Your task to perform on an android device: toggle wifi Image 0: 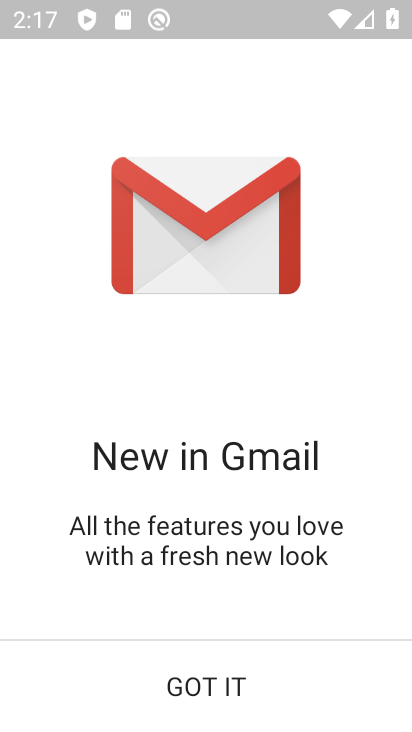
Step 0: press home button
Your task to perform on an android device: toggle wifi Image 1: 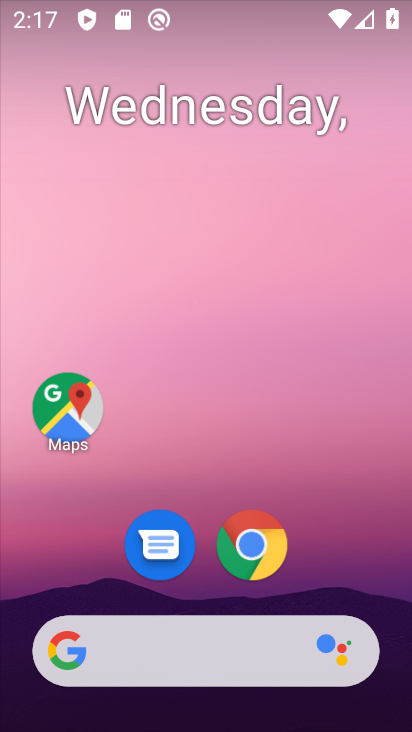
Step 1: drag from (195, 583) to (180, 281)
Your task to perform on an android device: toggle wifi Image 2: 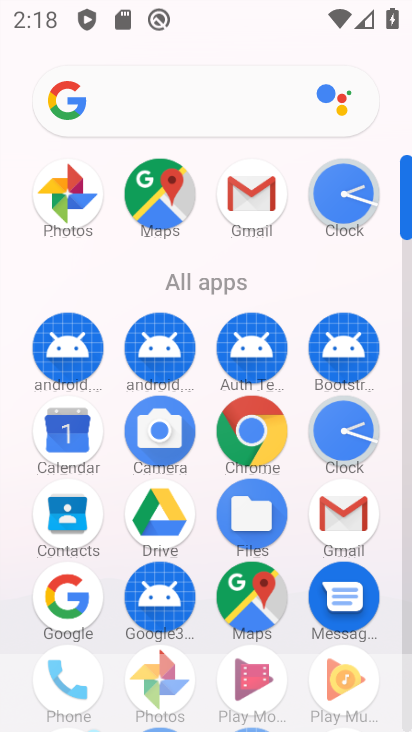
Step 2: drag from (288, 585) to (281, 387)
Your task to perform on an android device: toggle wifi Image 3: 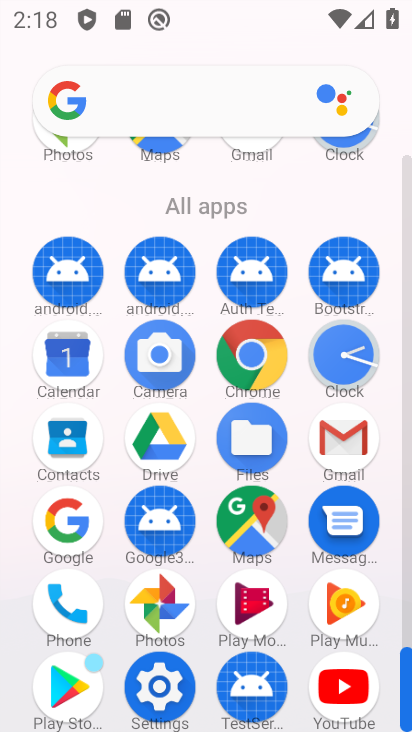
Step 3: drag from (288, 255) to (298, 532)
Your task to perform on an android device: toggle wifi Image 4: 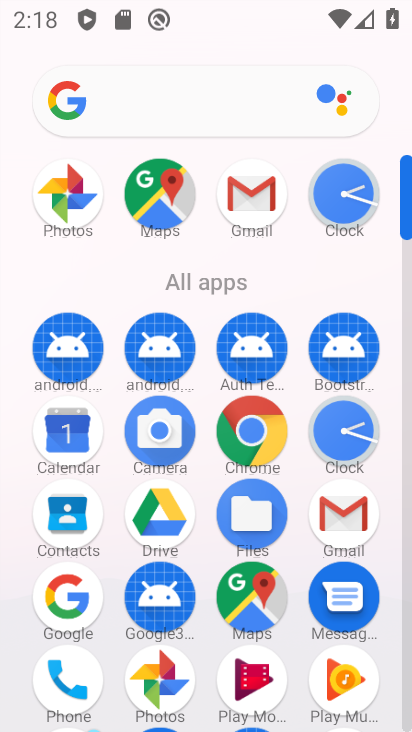
Step 4: drag from (301, 569) to (283, 372)
Your task to perform on an android device: toggle wifi Image 5: 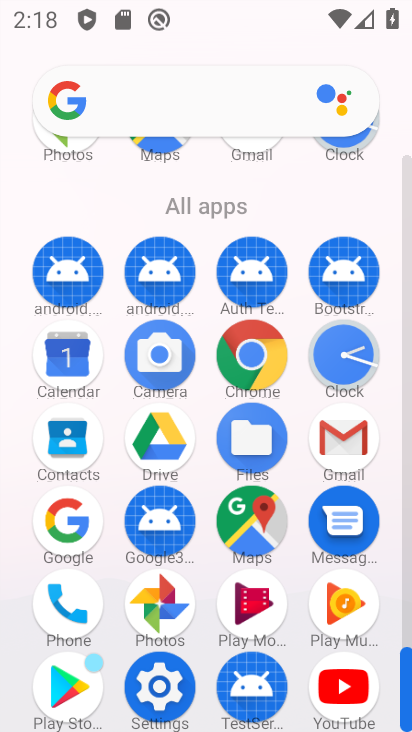
Step 5: click (154, 689)
Your task to perform on an android device: toggle wifi Image 6: 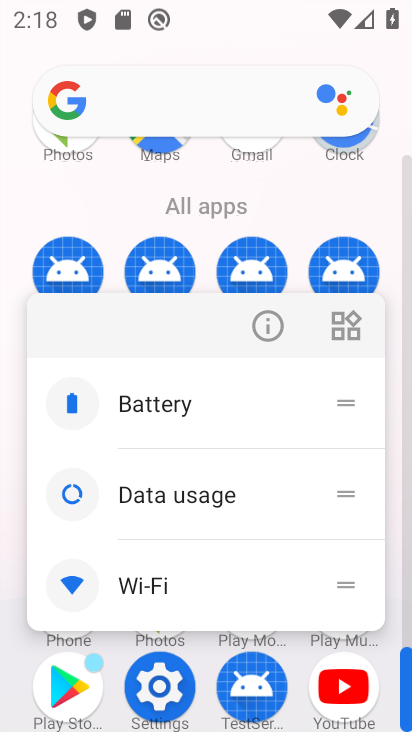
Step 6: click (171, 689)
Your task to perform on an android device: toggle wifi Image 7: 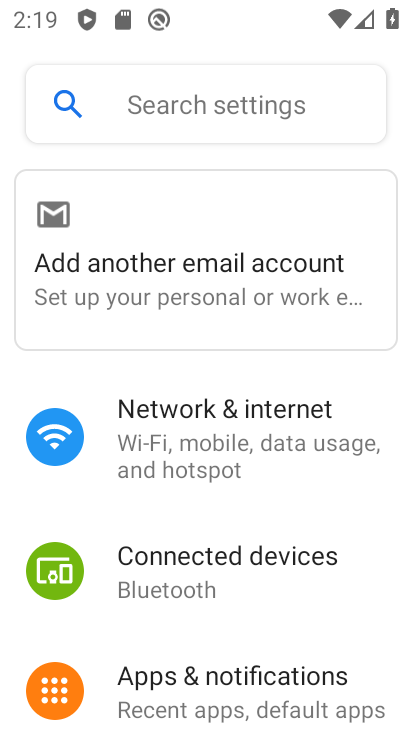
Step 7: drag from (266, 583) to (188, 346)
Your task to perform on an android device: toggle wifi Image 8: 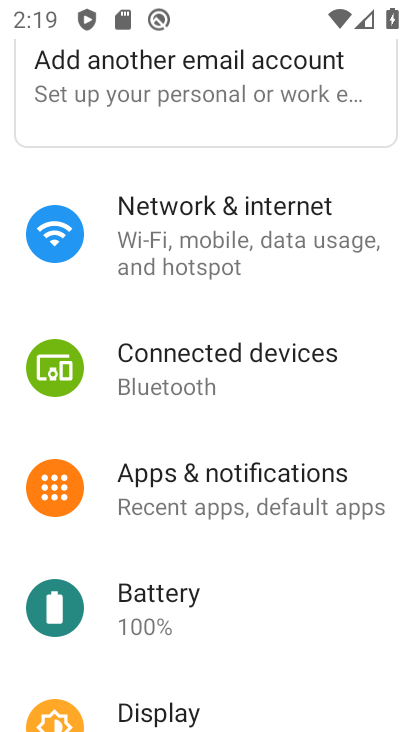
Step 8: click (167, 257)
Your task to perform on an android device: toggle wifi Image 9: 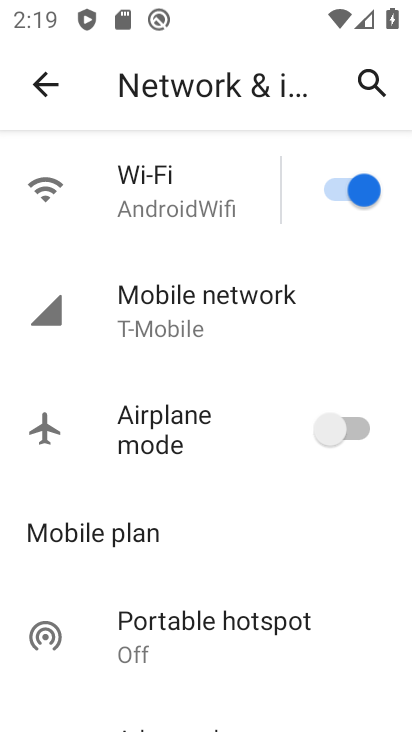
Step 9: click (351, 196)
Your task to perform on an android device: toggle wifi Image 10: 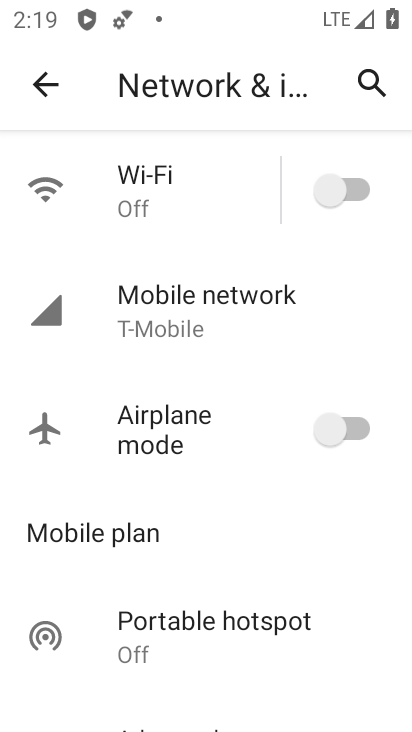
Step 10: task complete